Your task to perform on an android device: Go to Google maps Image 0: 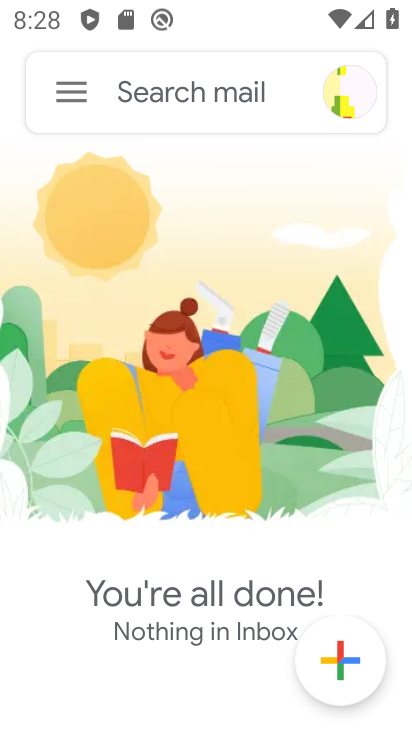
Step 0: press home button
Your task to perform on an android device: Go to Google maps Image 1: 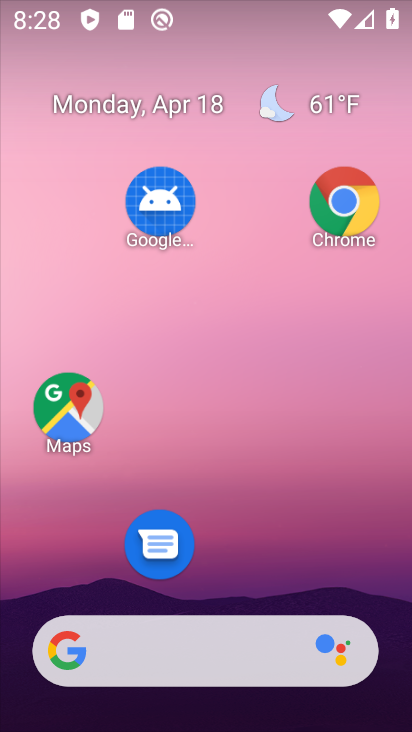
Step 1: drag from (212, 605) to (290, 14)
Your task to perform on an android device: Go to Google maps Image 2: 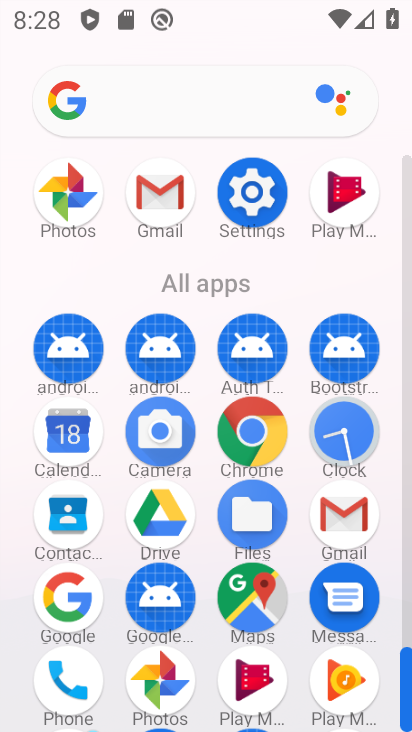
Step 2: click (249, 586)
Your task to perform on an android device: Go to Google maps Image 3: 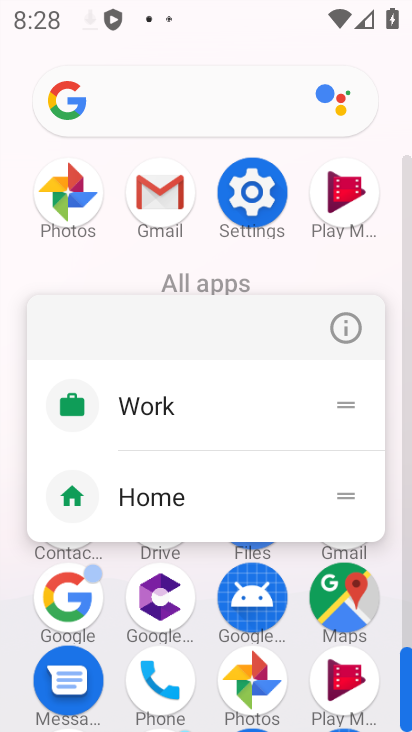
Step 3: click (247, 582)
Your task to perform on an android device: Go to Google maps Image 4: 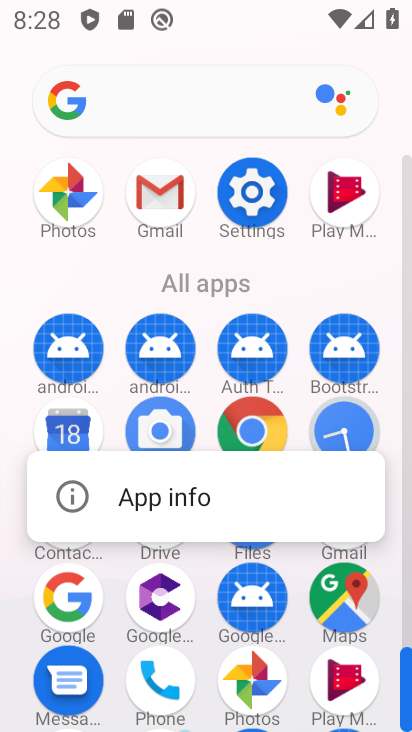
Step 4: click (353, 589)
Your task to perform on an android device: Go to Google maps Image 5: 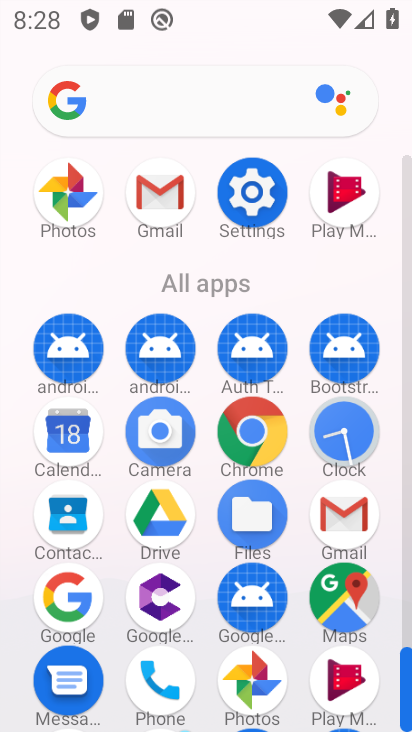
Step 5: click (354, 611)
Your task to perform on an android device: Go to Google maps Image 6: 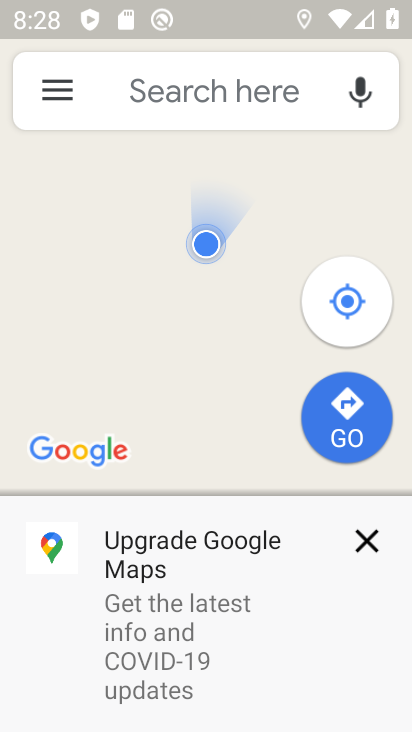
Step 6: click (370, 541)
Your task to perform on an android device: Go to Google maps Image 7: 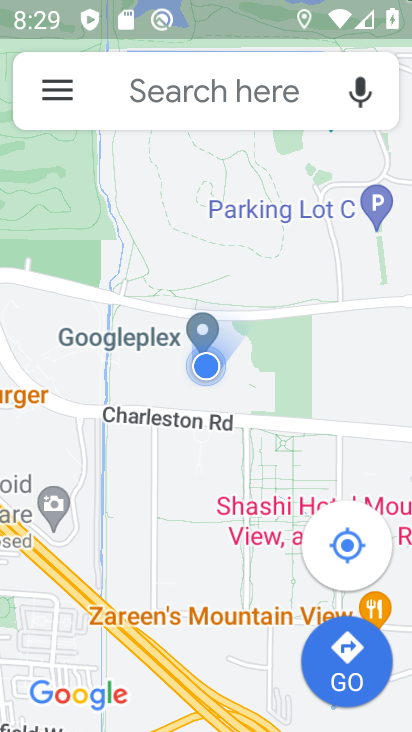
Step 7: task complete